Your task to perform on an android device: search for starred emails in the gmail app Image 0: 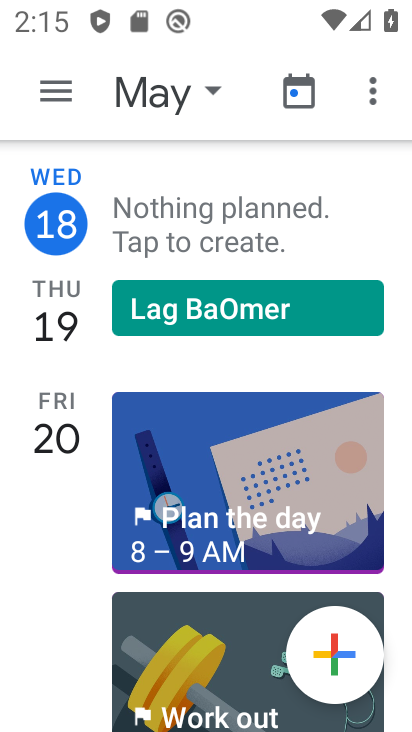
Step 0: press home button
Your task to perform on an android device: search for starred emails in the gmail app Image 1: 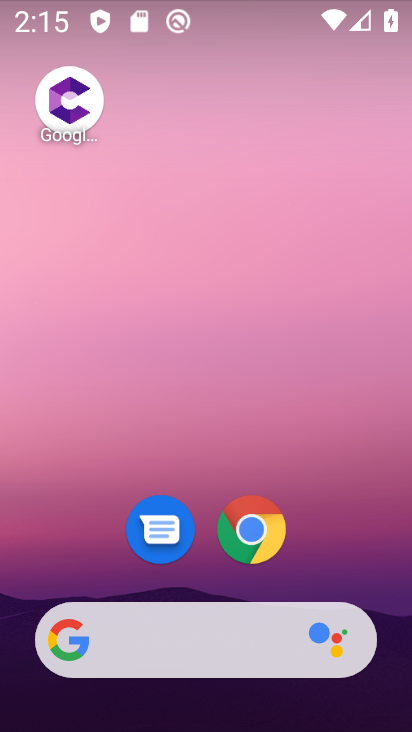
Step 1: drag from (349, 583) to (313, 22)
Your task to perform on an android device: search for starred emails in the gmail app Image 2: 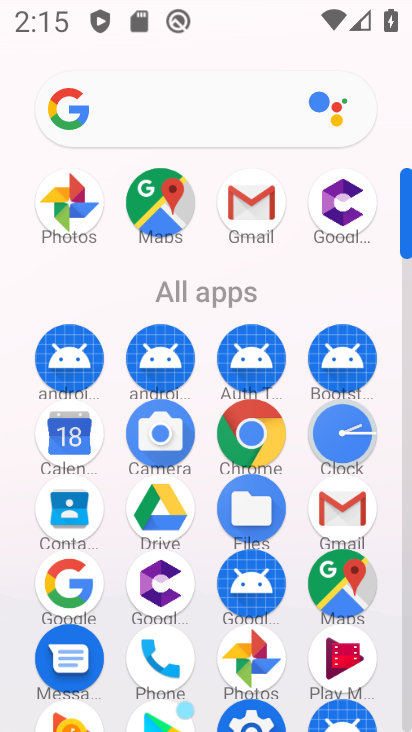
Step 2: click (239, 202)
Your task to perform on an android device: search for starred emails in the gmail app Image 3: 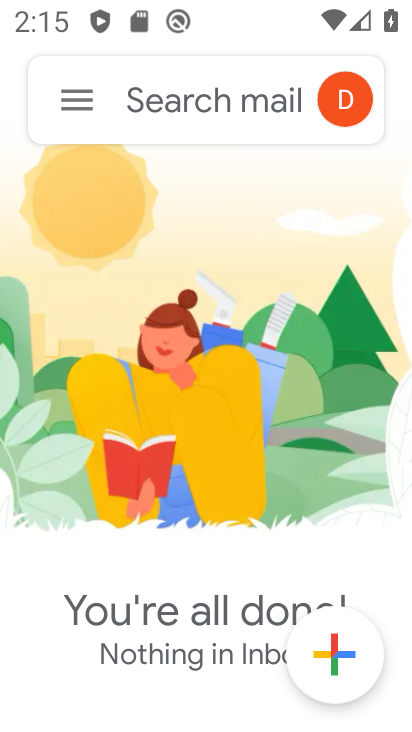
Step 3: click (82, 106)
Your task to perform on an android device: search for starred emails in the gmail app Image 4: 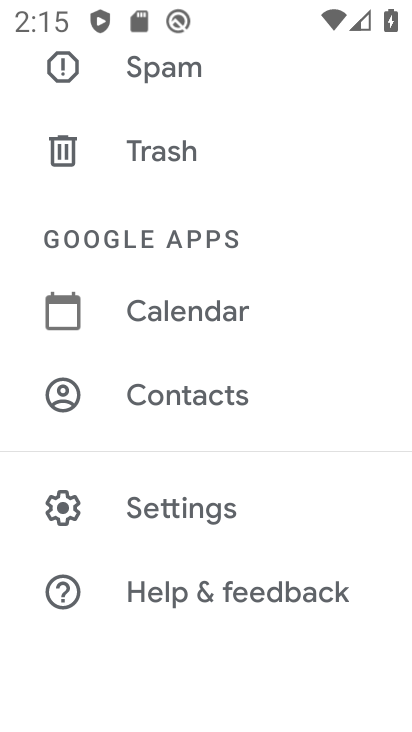
Step 4: drag from (246, 156) to (224, 730)
Your task to perform on an android device: search for starred emails in the gmail app Image 5: 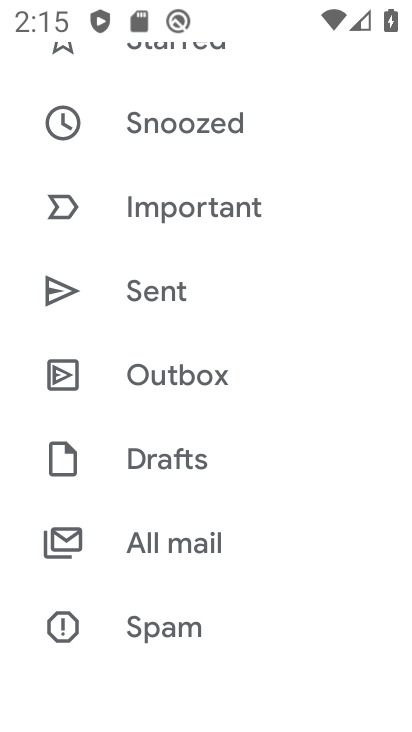
Step 5: drag from (183, 170) to (174, 465)
Your task to perform on an android device: search for starred emails in the gmail app Image 6: 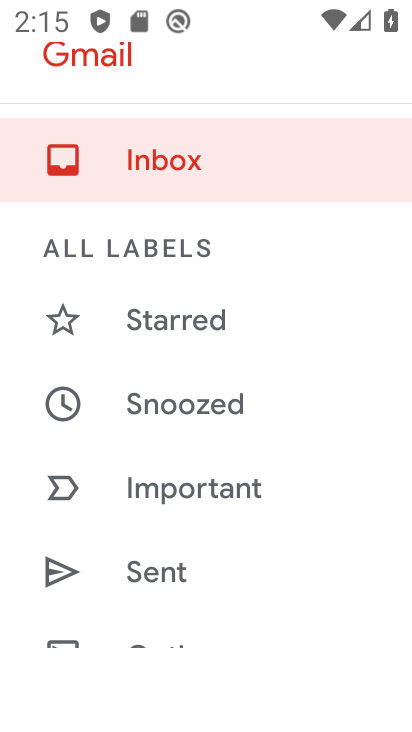
Step 6: click (160, 326)
Your task to perform on an android device: search for starred emails in the gmail app Image 7: 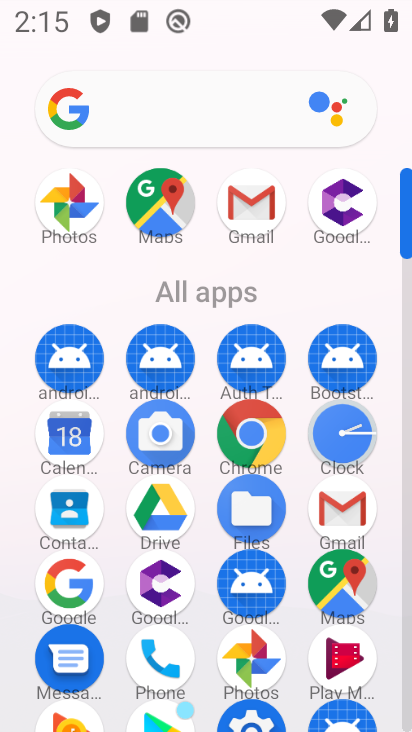
Step 7: click (262, 207)
Your task to perform on an android device: search for starred emails in the gmail app Image 8: 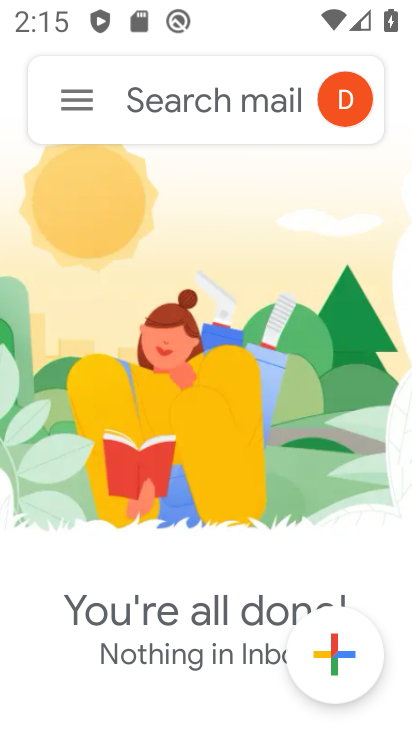
Step 8: click (66, 103)
Your task to perform on an android device: search for starred emails in the gmail app Image 9: 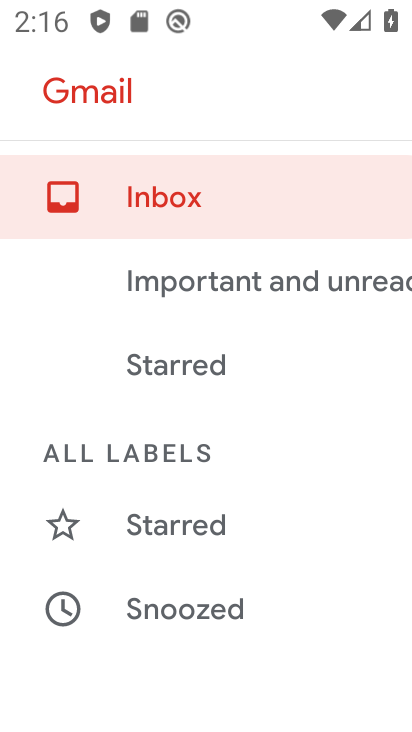
Step 9: click (161, 539)
Your task to perform on an android device: search for starred emails in the gmail app Image 10: 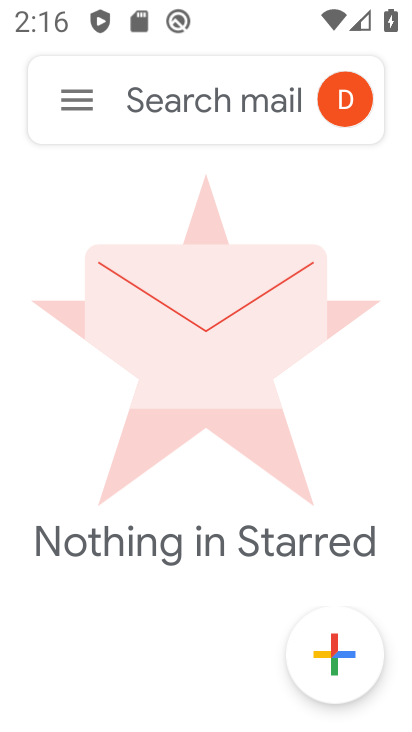
Step 10: task complete